Your task to perform on an android device: What's on my calendar today? Image 0: 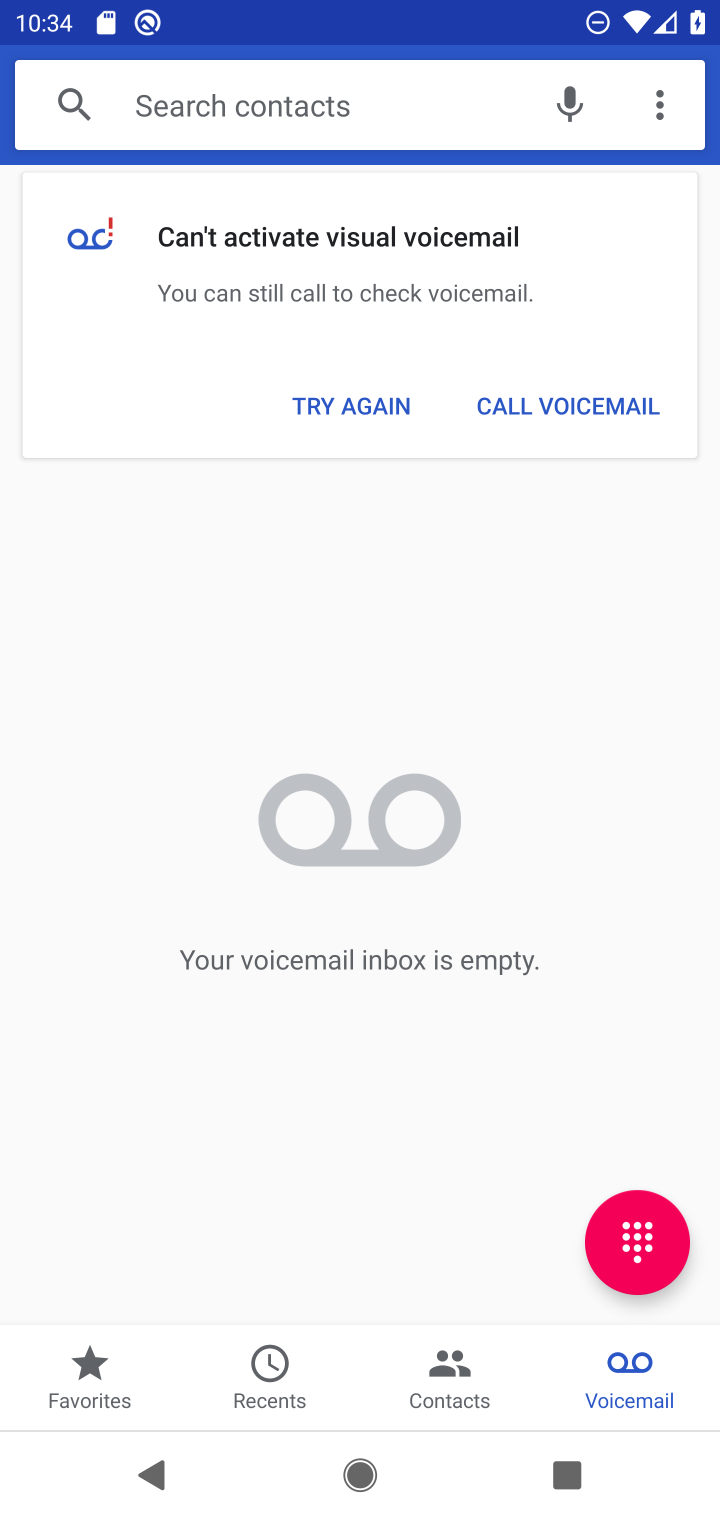
Step 0: press home button
Your task to perform on an android device: What's on my calendar today? Image 1: 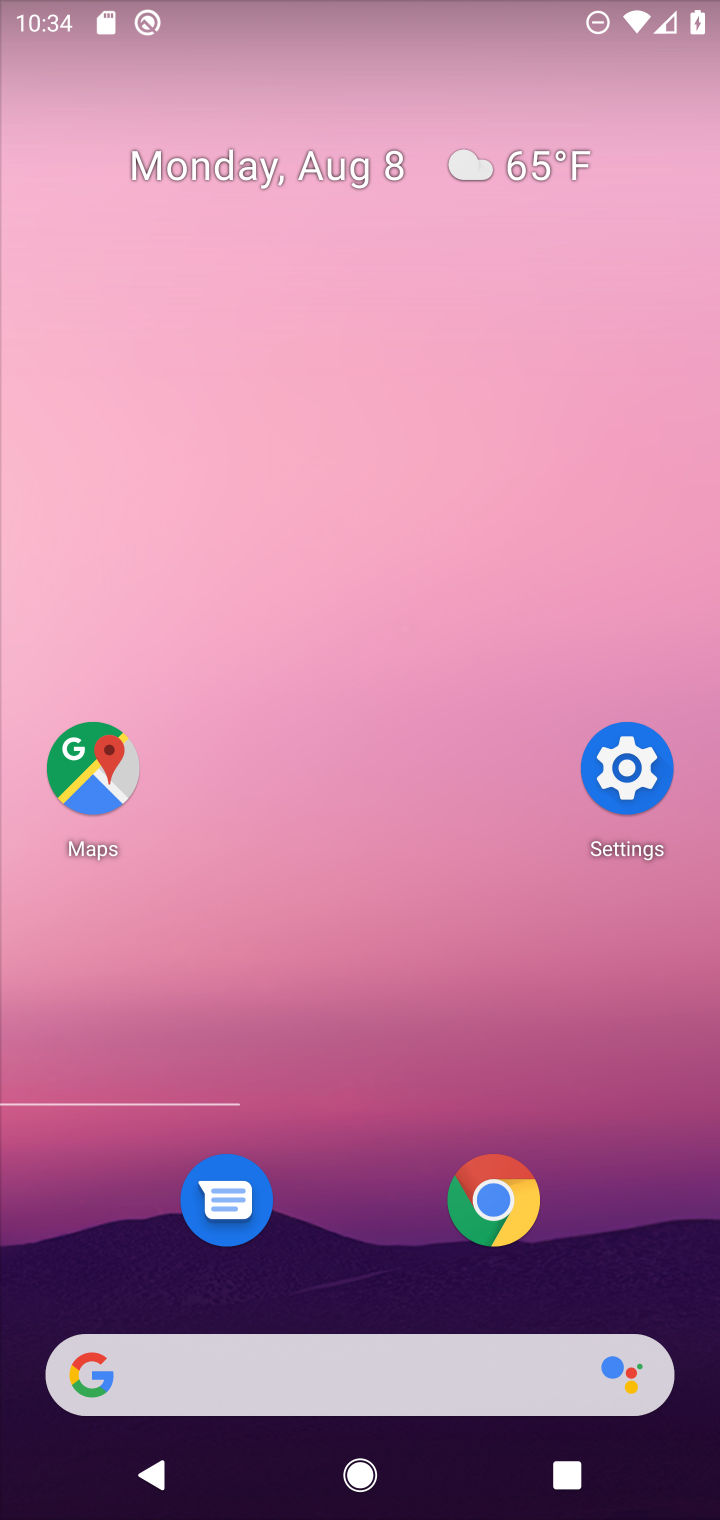
Step 1: drag from (378, 1092) to (647, 113)
Your task to perform on an android device: What's on my calendar today? Image 2: 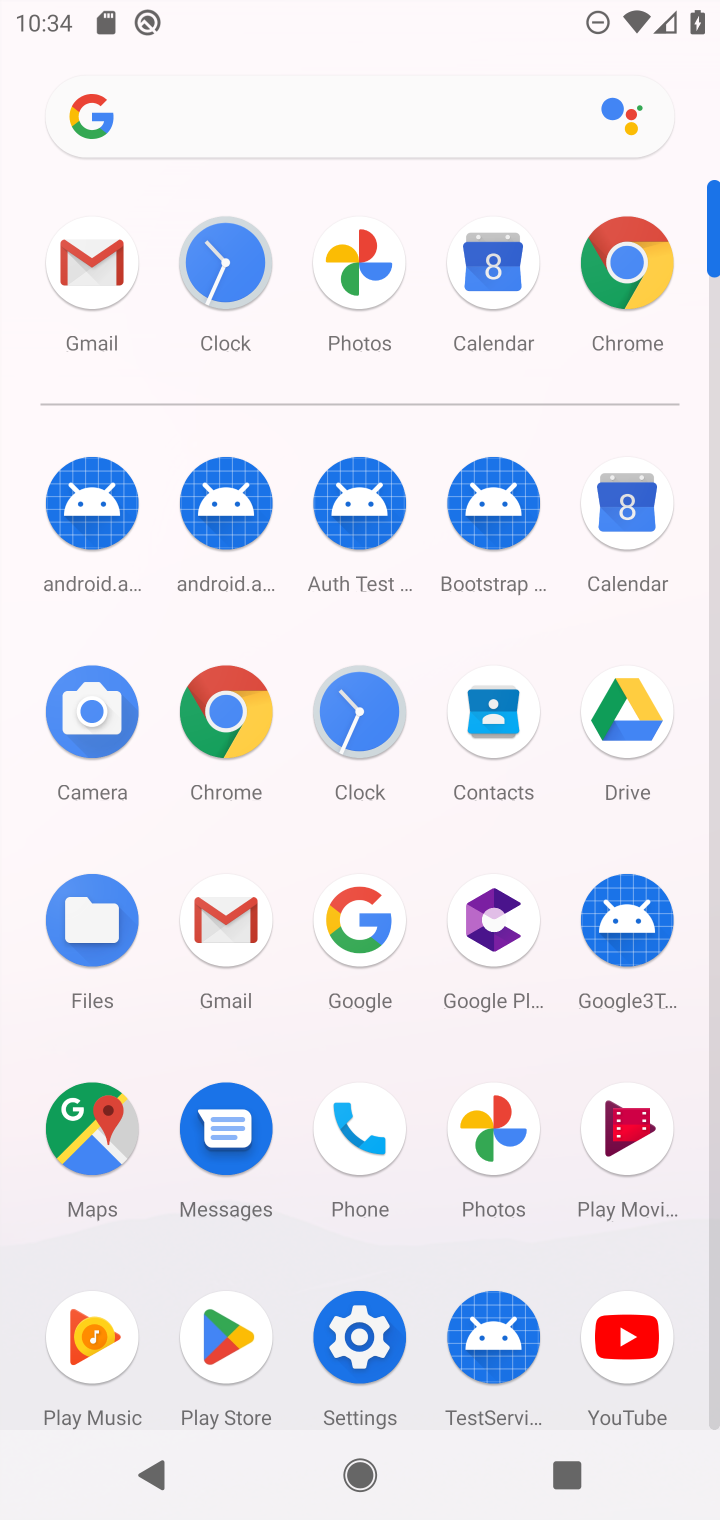
Step 2: click (628, 518)
Your task to perform on an android device: What's on my calendar today? Image 3: 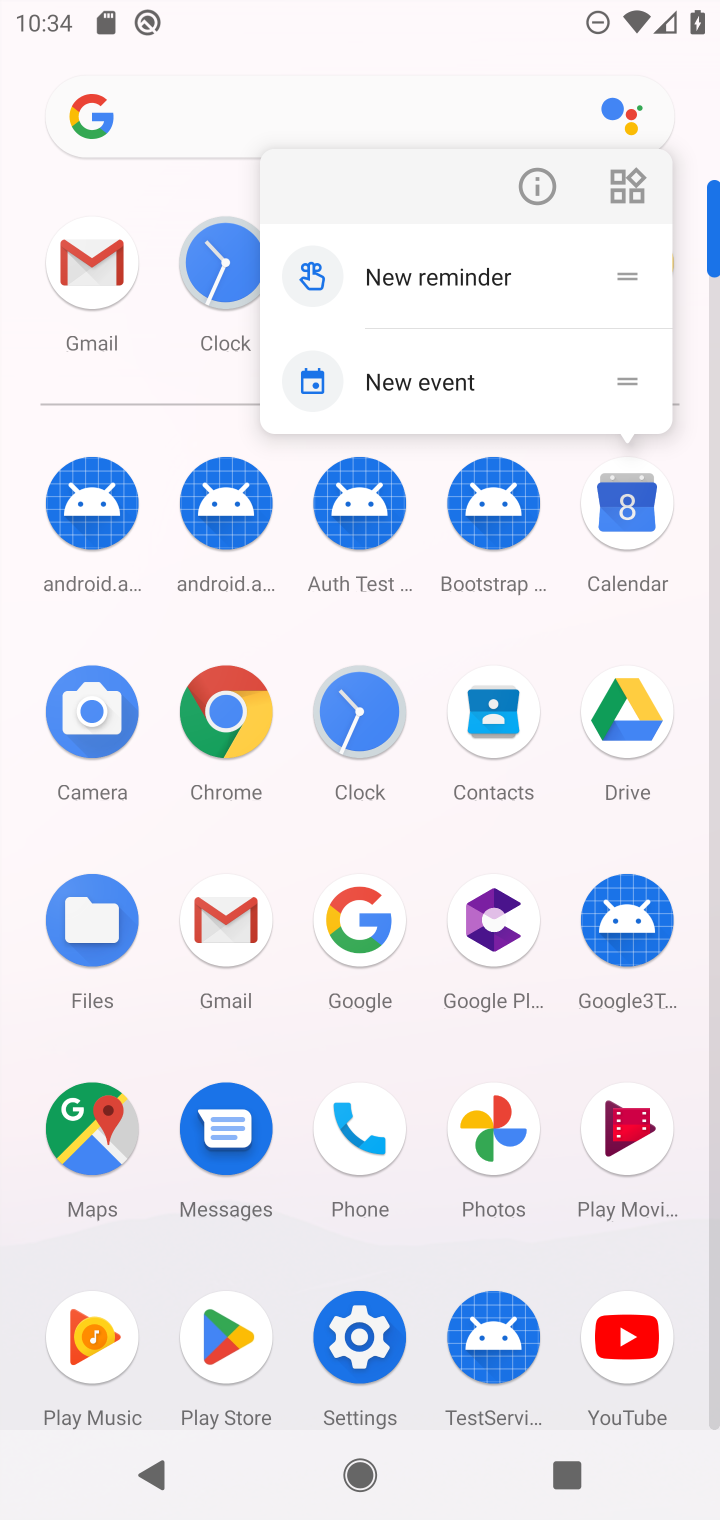
Step 3: click (628, 520)
Your task to perform on an android device: What's on my calendar today? Image 4: 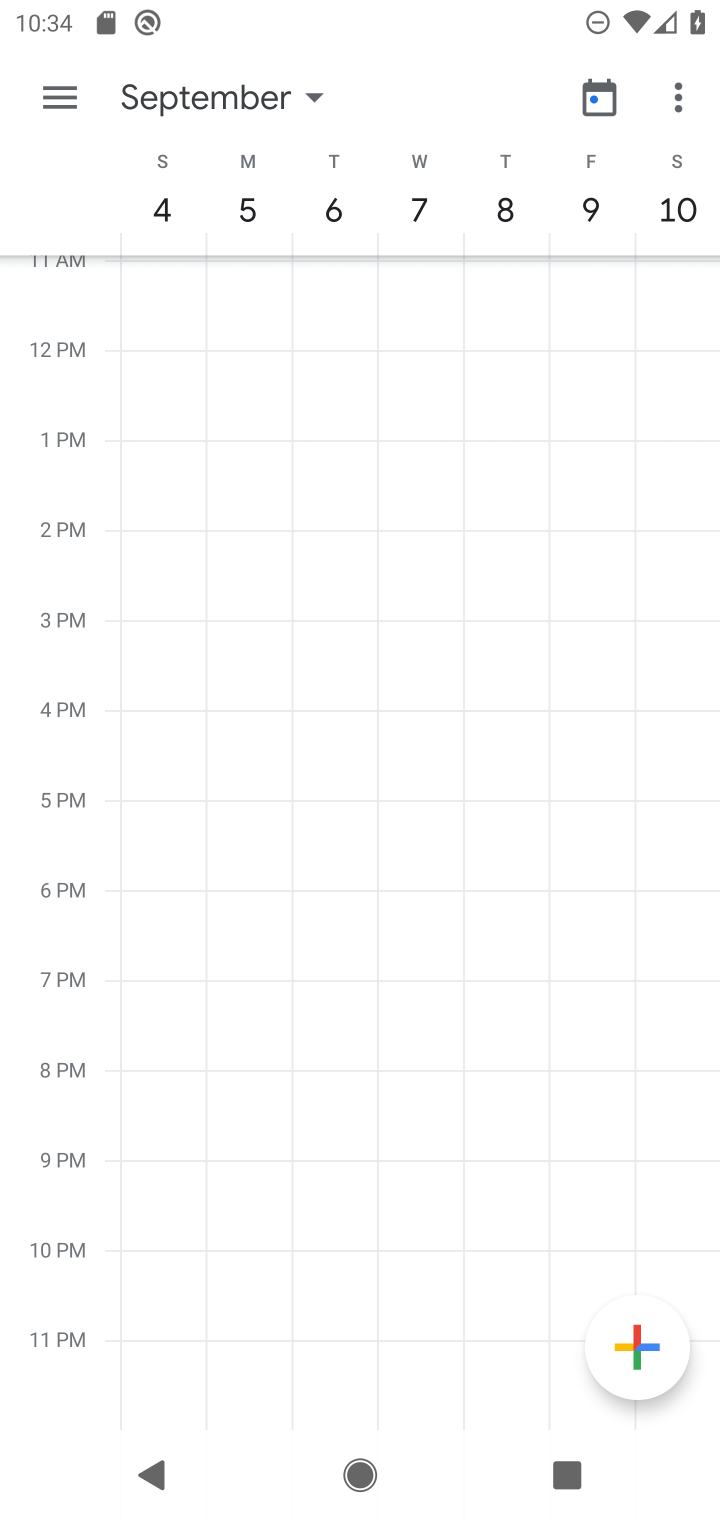
Step 4: click (185, 86)
Your task to perform on an android device: What's on my calendar today? Image 5: 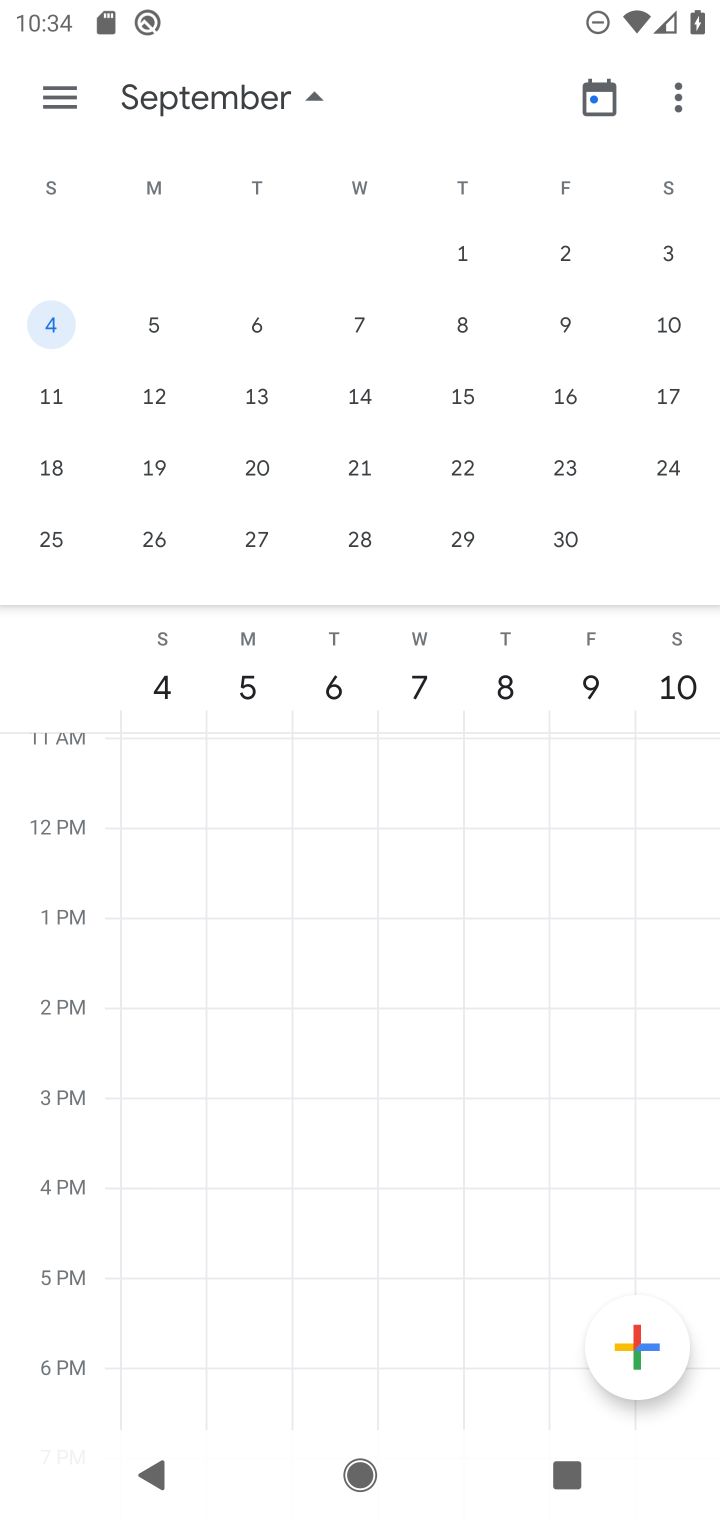
Step 5: drag from (106, 428) to (690, 506)
Your task to perform on an android device: What's on my calendar today? Image 6: 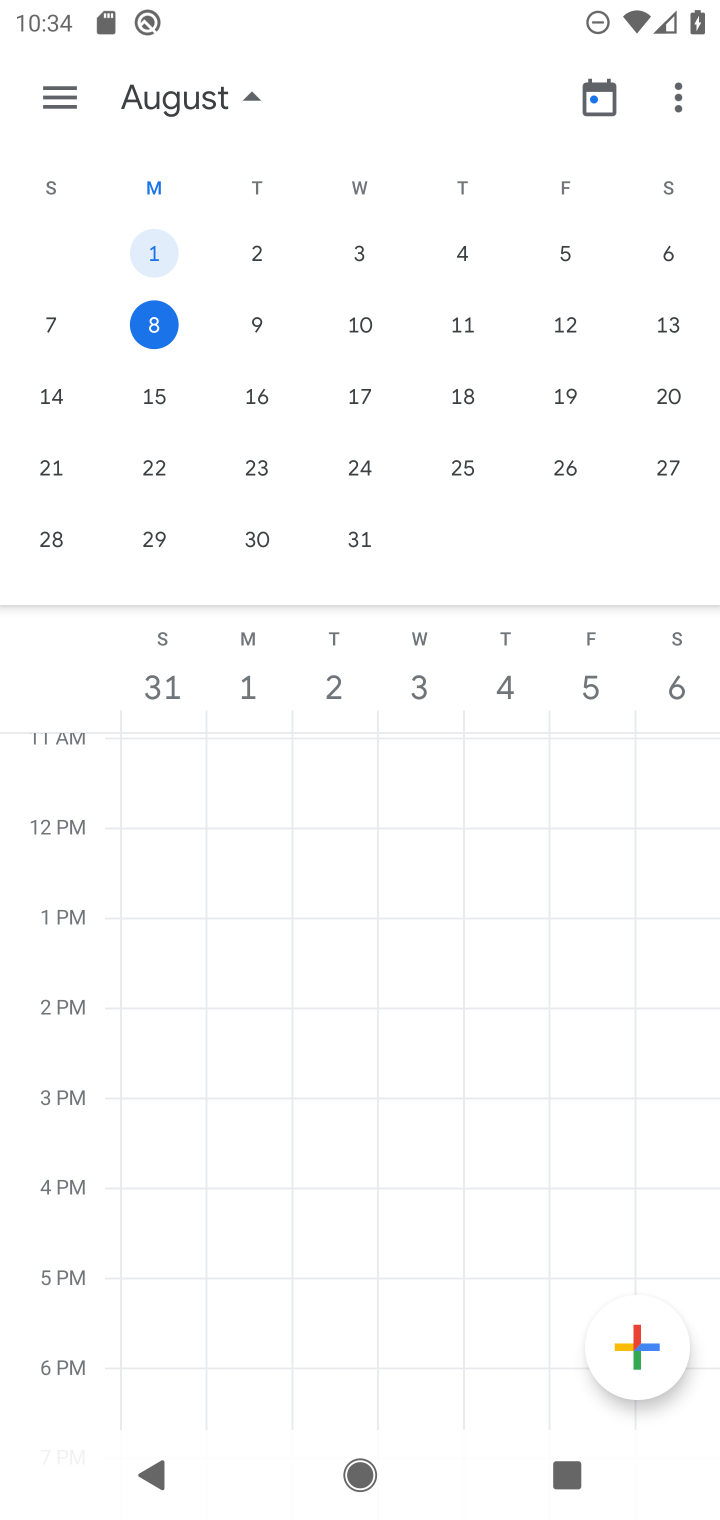
Step 6: click (155, 313)
Your task to perform on an android device: What's on my calendar today? Image 7: 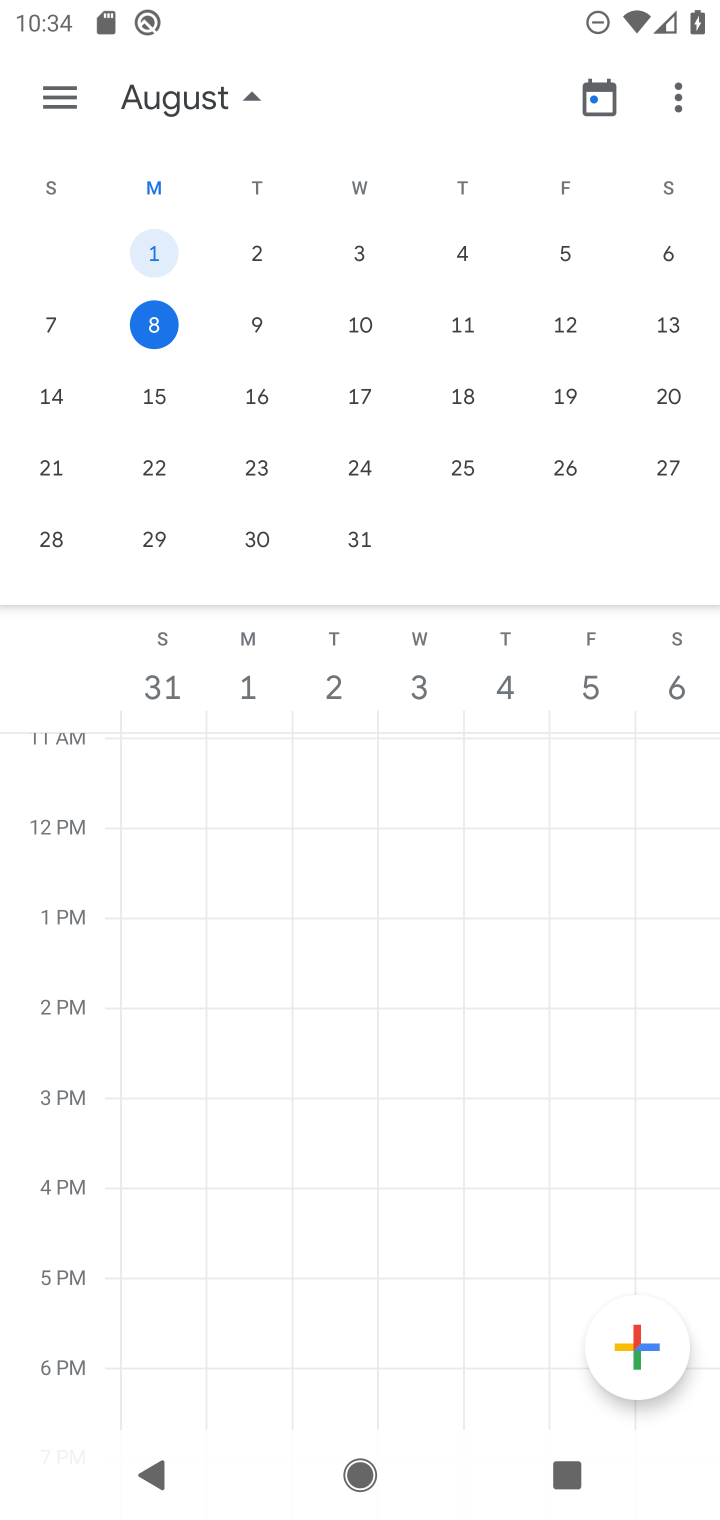
Step 7: click (176, 324)
Your task to perform on an android device: What's on my calendar today? Image 8: 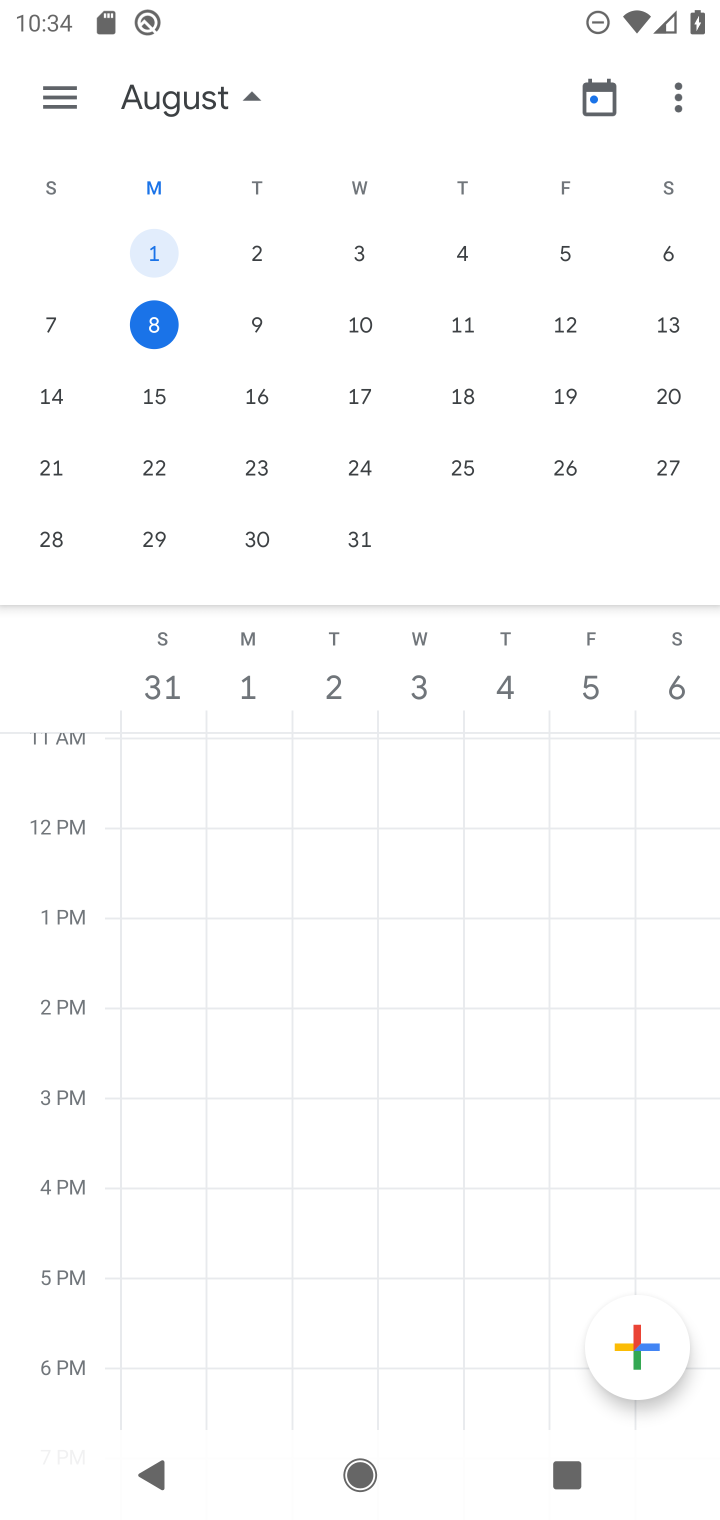
Step 8: click (165, 313)
Your task to perform on an android device: What's on my calendar today? Image 9: 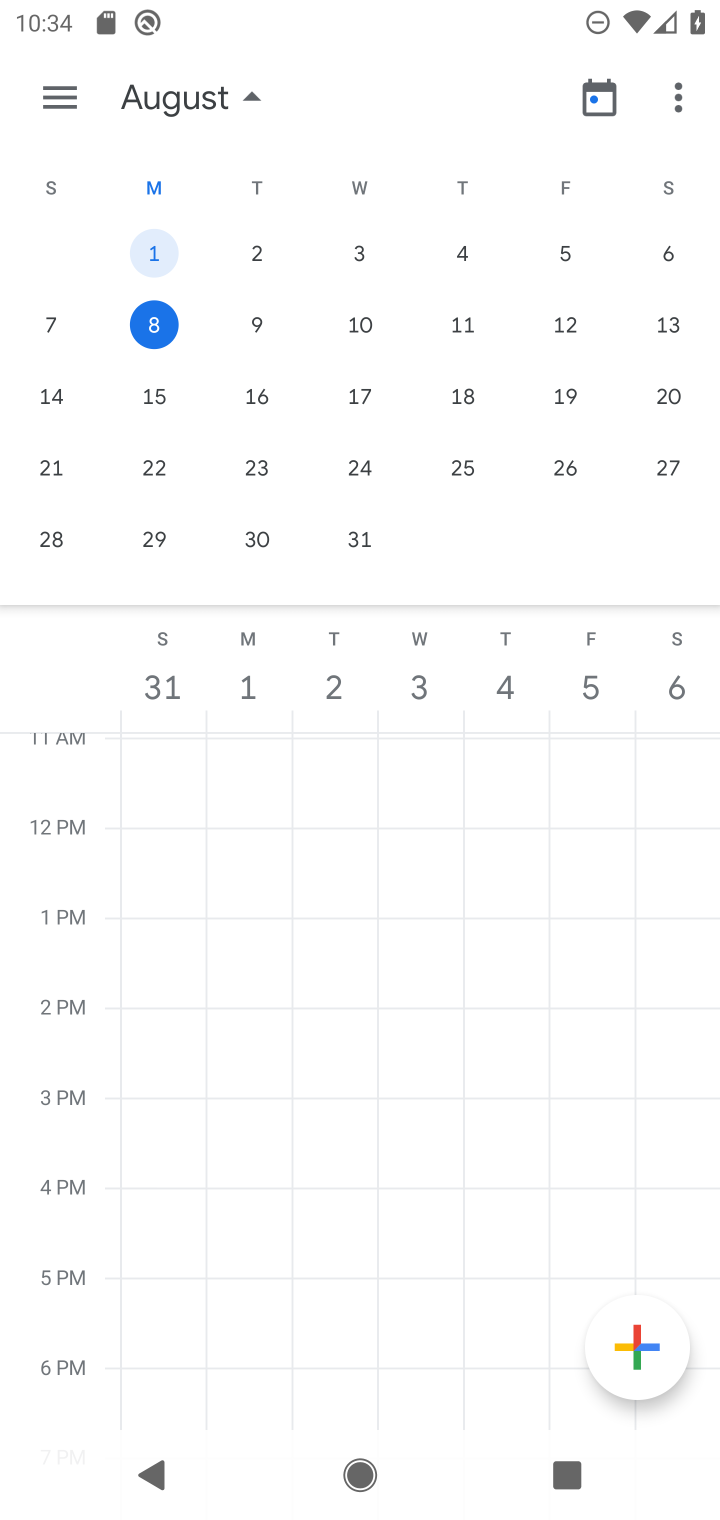
Step 9: click (197, 324)
Your task to perform on an android device: What's on my calendar today? Image 10: 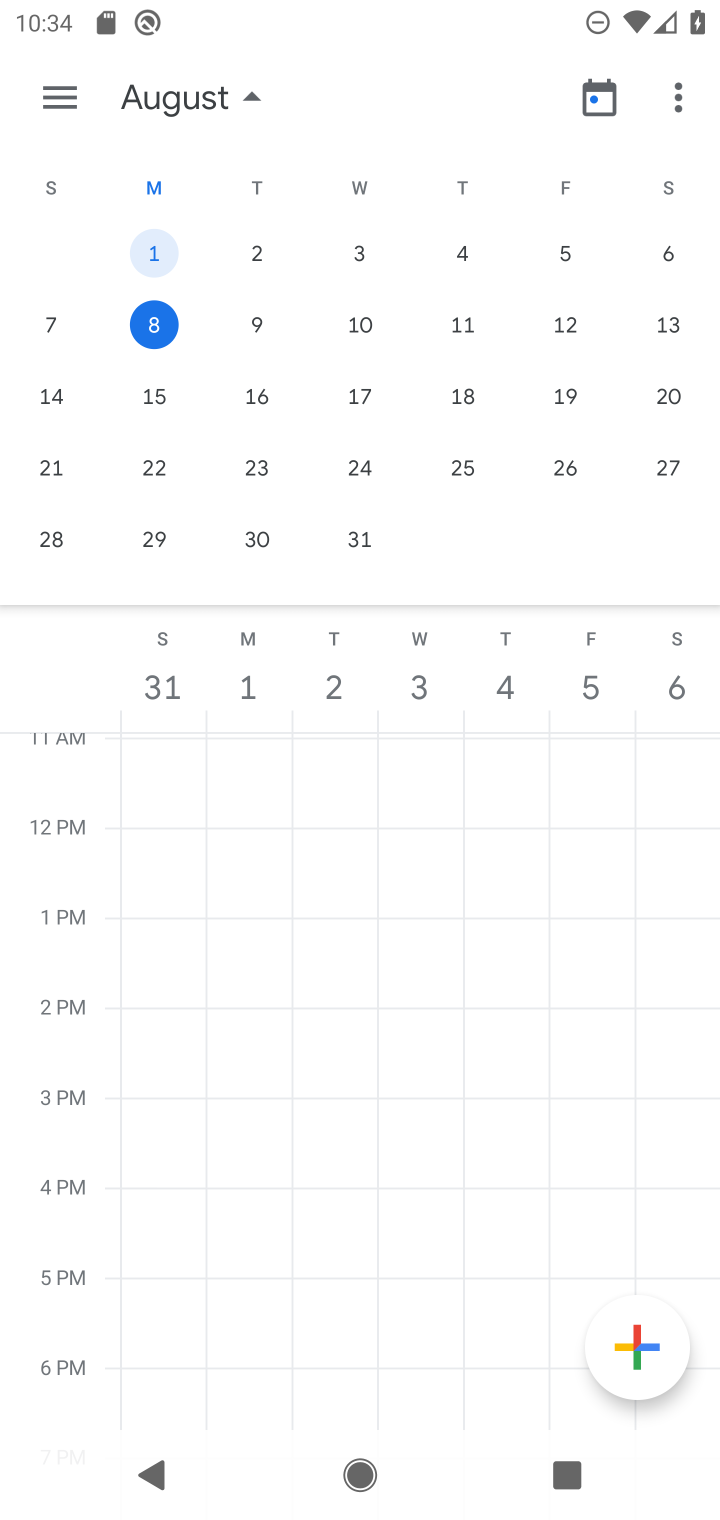
Step 10: click (265, 308)
Your task to perform on an android device: What's on my calendar today? Image 11: 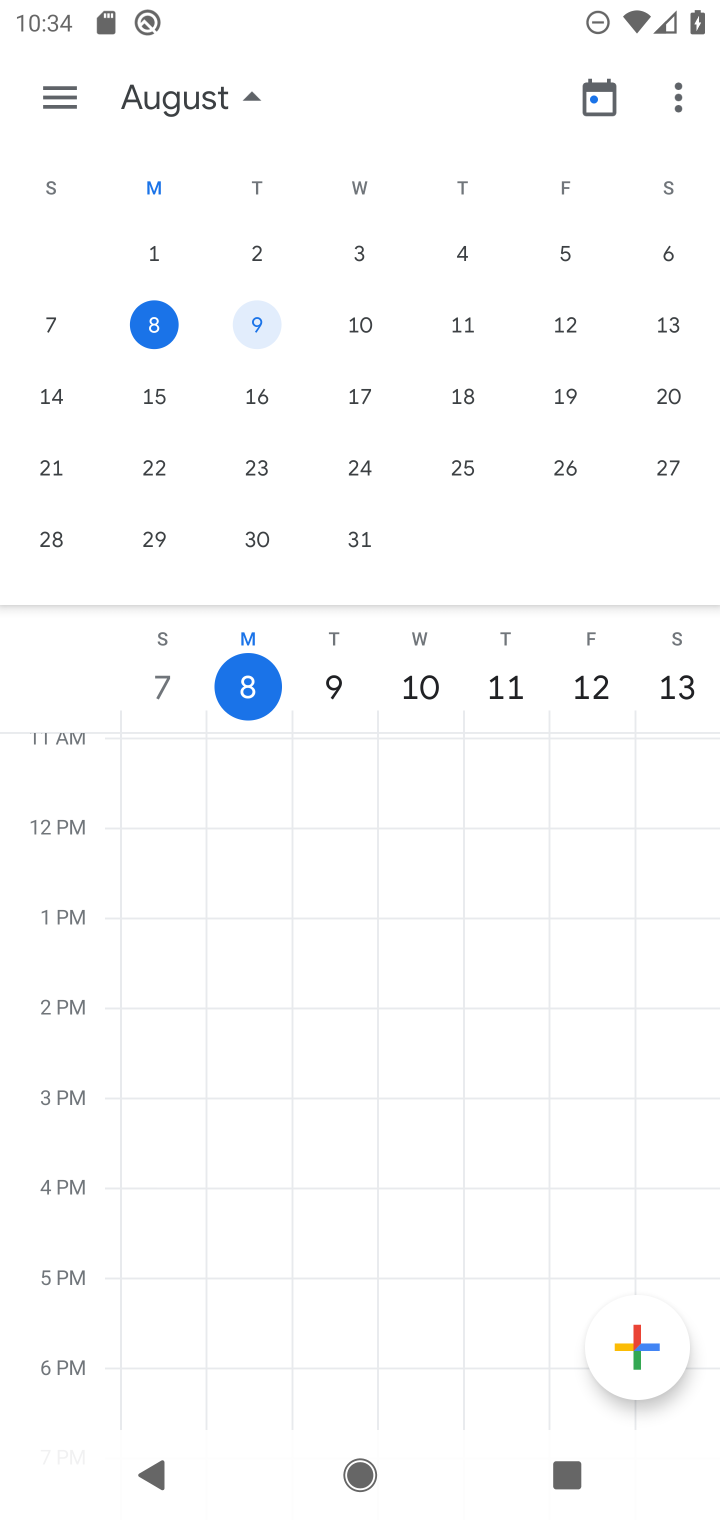
Step 11: click (166, 312)
Your task to perform on an android device: What's on my calendar today? Image 12: 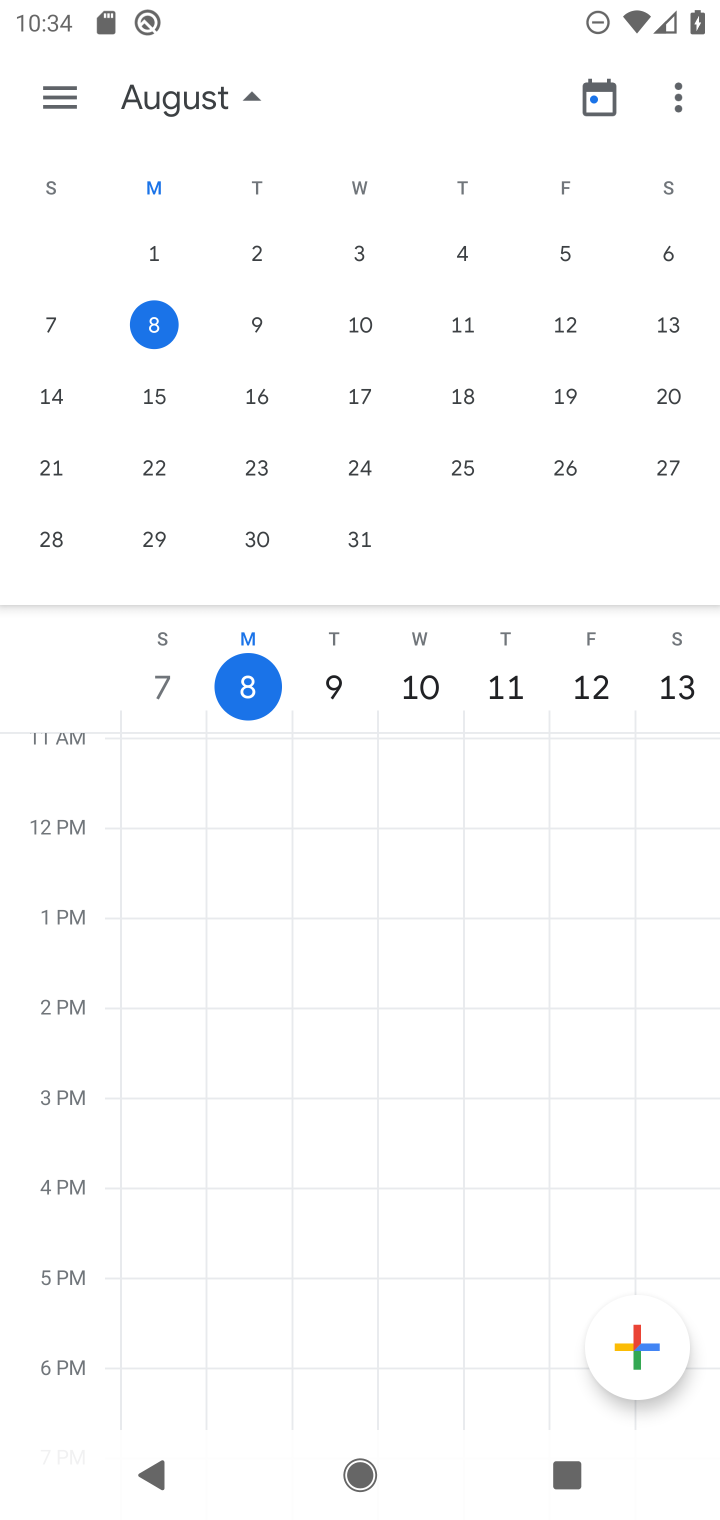
Step 12: click (51, 99)
Your task to perform on an android device: What's on my calendar today? Image 13: 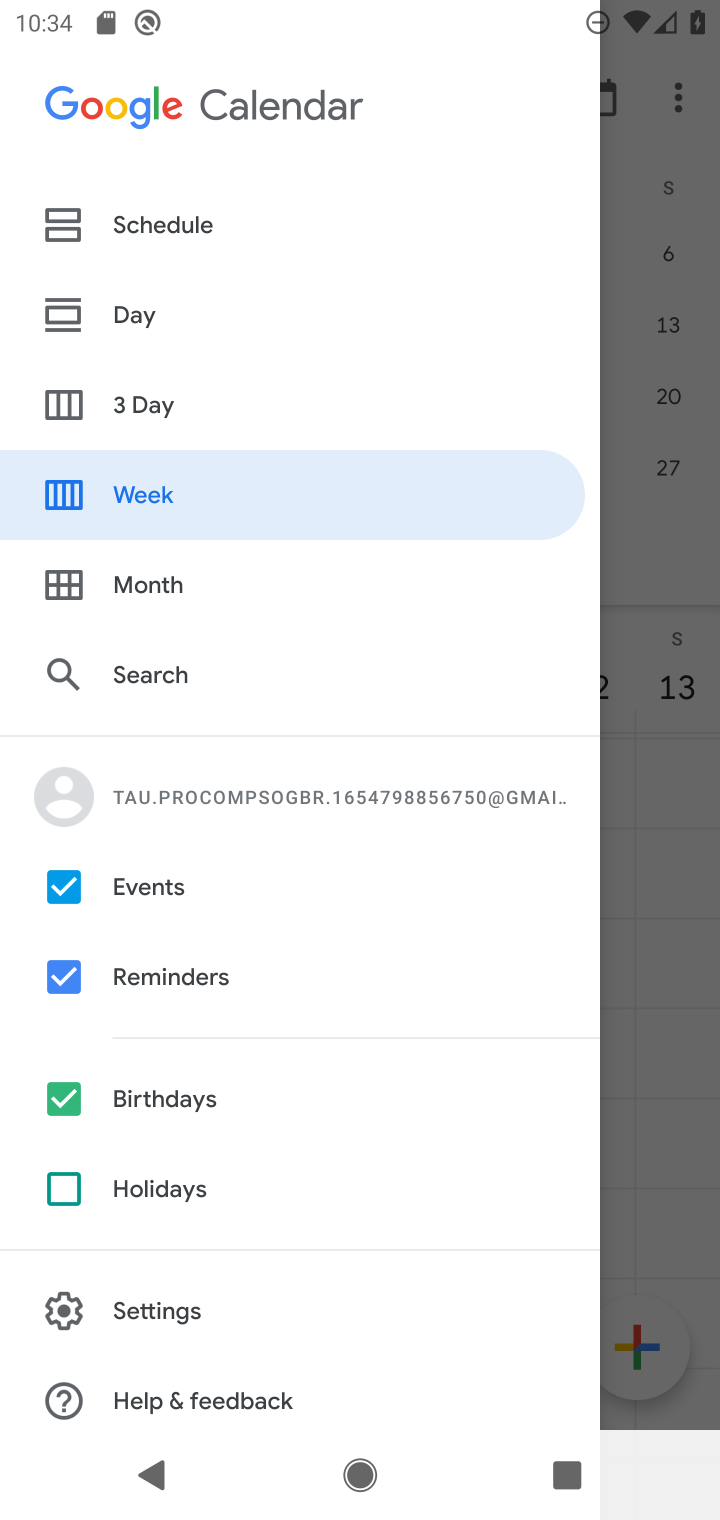
Step 13: click (134, 308)
Your task to perform on an android device: What's on my calendar today? Image 14: 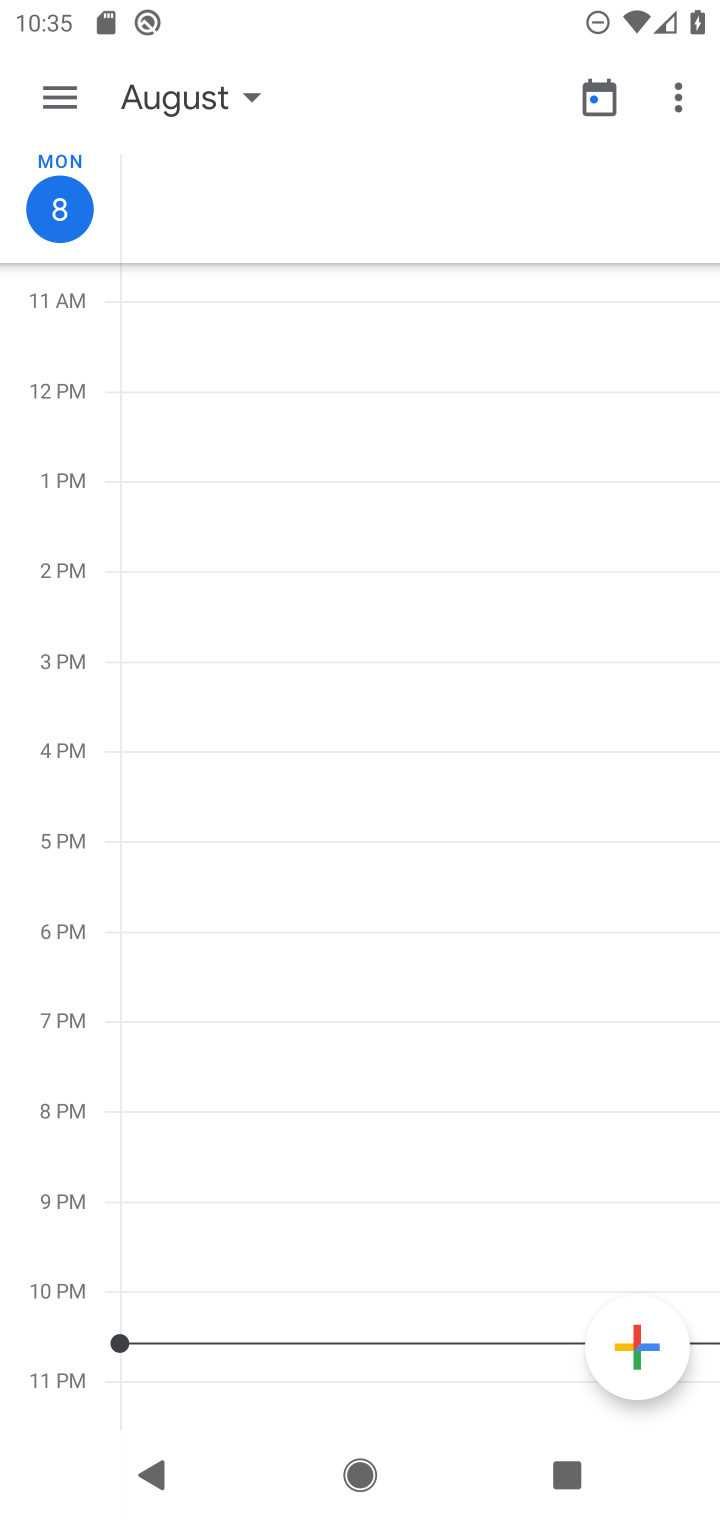
Step 14: click (68, 94)
Your task to perform on an android device: What's on my calendar today? Image 15: 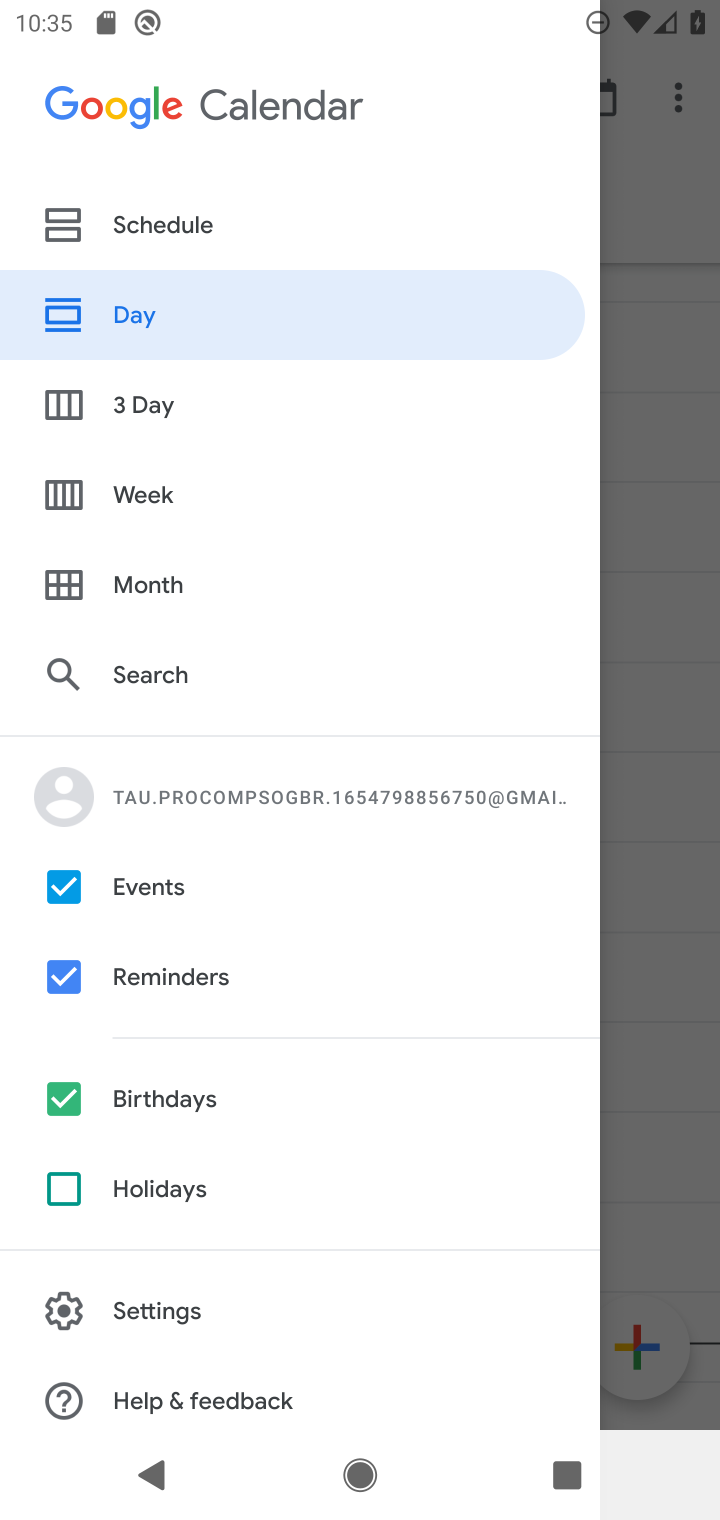
Step 15: click (145, 219)
Your task to perform on an android device: What's on my calendar today? Image 16: 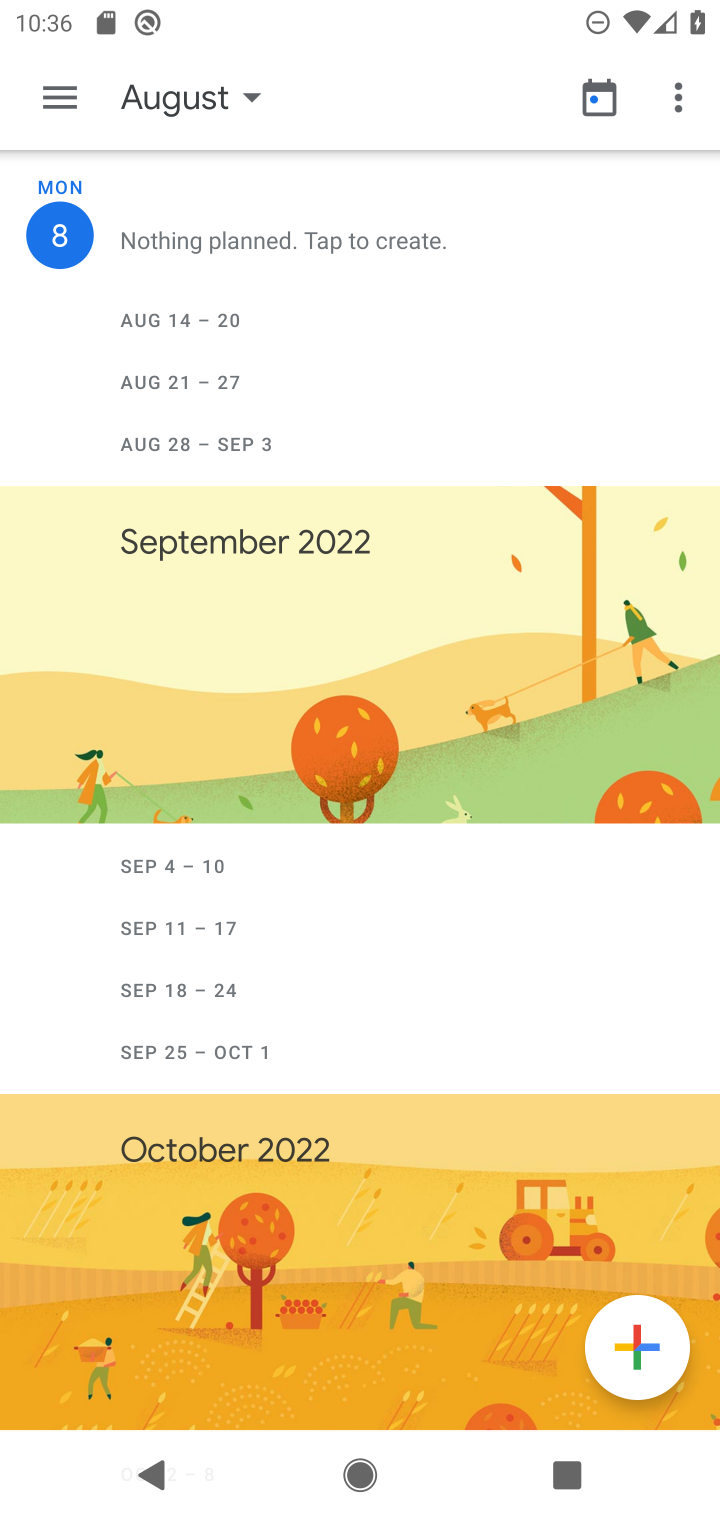
Step 16: task complete